Your task to perform on an android device: Search for Mexican restaurants on Maps Image 0: 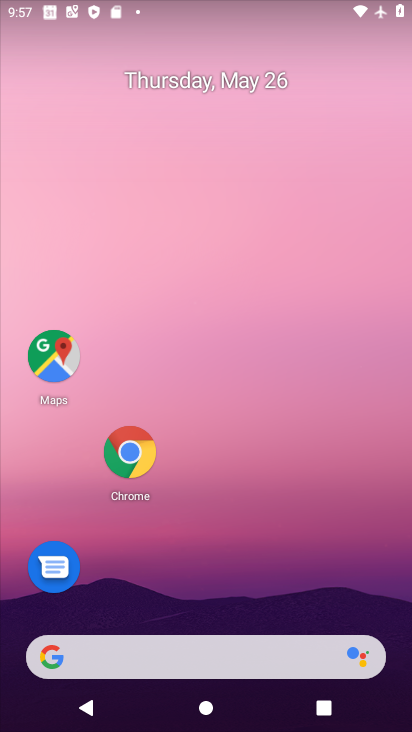
Step 0: click (51, 349)
Your task to perform on an android device: Search for Mexican restaurants on Maps Image 1: 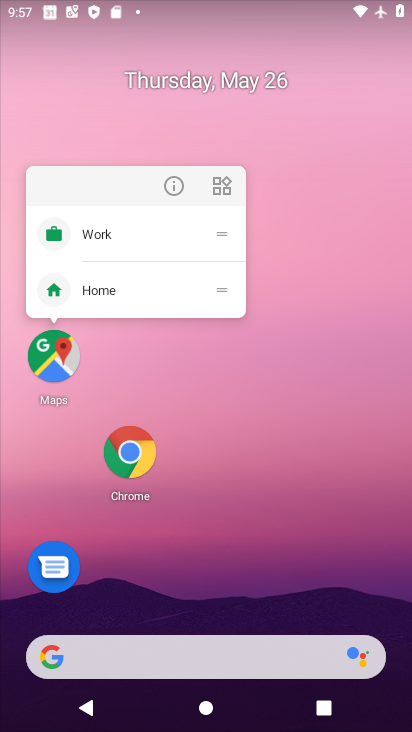
Step 1: click (56, 356)
Your task to perform on an android device: Search for Mexican restaurants on Maps Image 2: 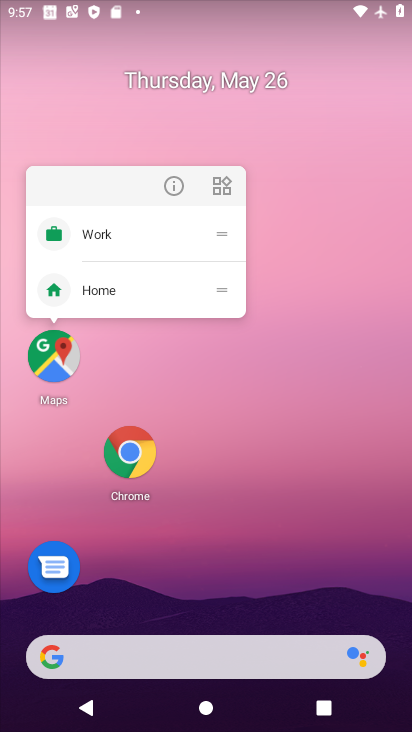
Step 2: click (55, 371)
Your task to perform on an android device: Search for Mexican restaurants on Maps Image 3: 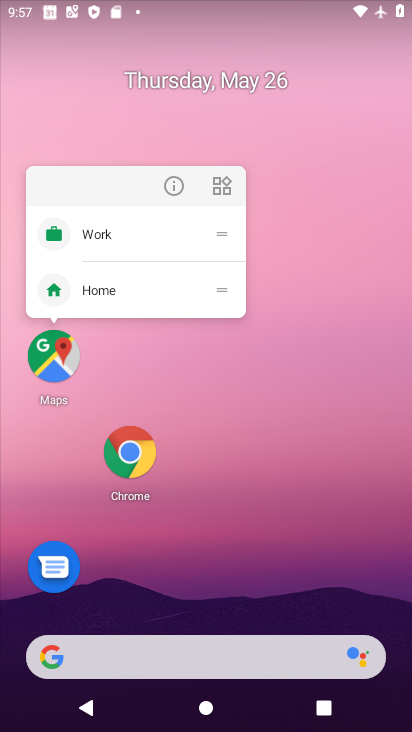
Step 3: click (54, 358)
Your task to perform on an android device: Search for Mexican restaurants on Maps Image 4: 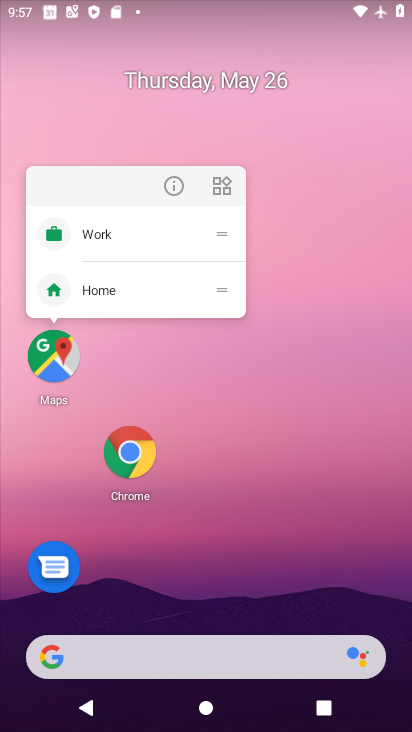
Step 4: click (67, 317)
Your task to perform on an android device: Search for Mexican restaurants on Maps Image 5: 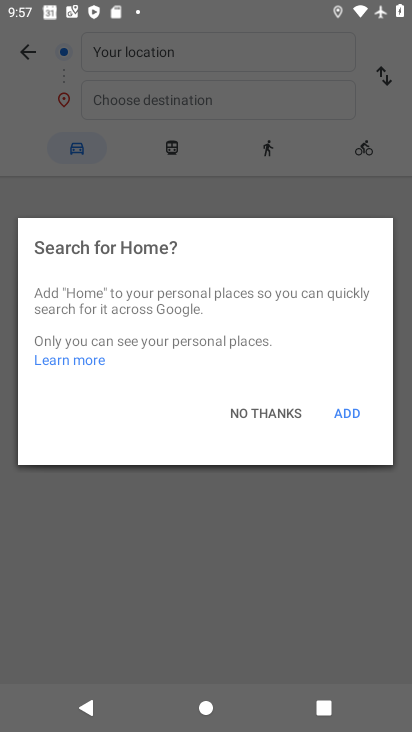
Step 5: click (241, 411)
Your task to perform on an android device: Search for Mexican restaurants on Maps Image 6: 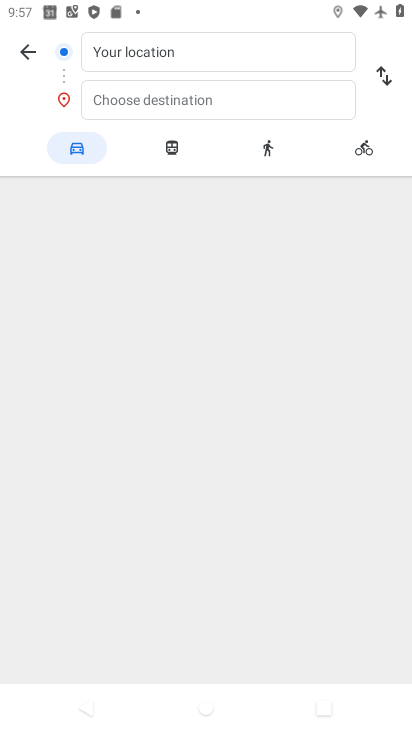
Step 6: click (26, 46)
Your task to perform on an android device: Search for Mexican restaurants on Maps Image 7: 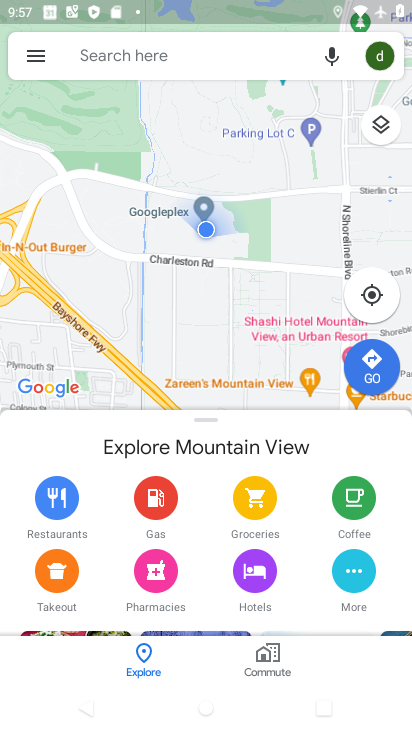
Step 7: click (163, 48)
Your task to perform on an android device: Search for Mexican restaurants on Maps Image 8: 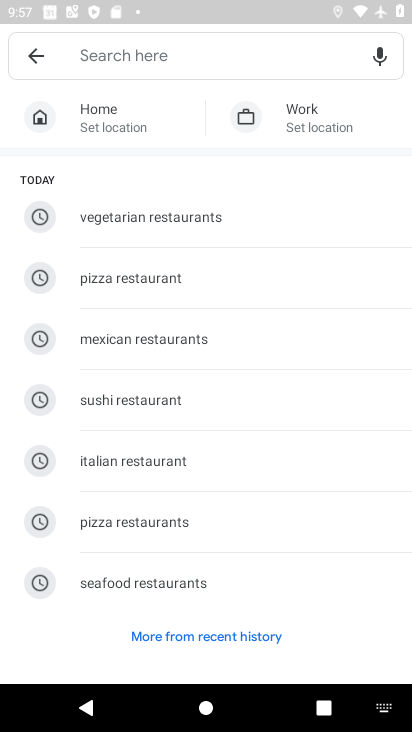
Step 8: click (164, 331)
Your task to perform on an android device: Search for Mexican restaurants on Maps Image 9: 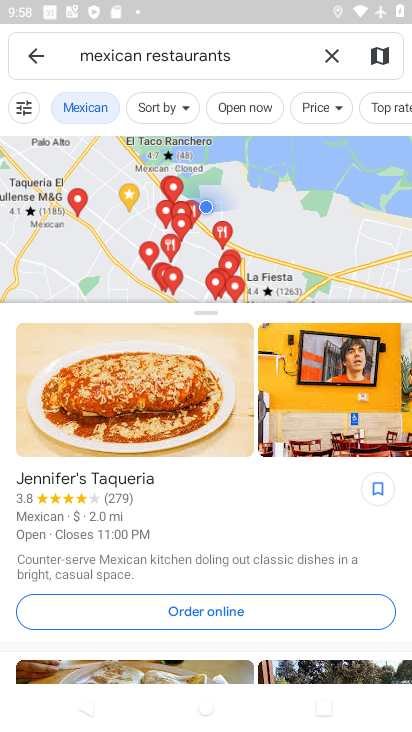
Step 9: task complete